Your task to perform on an android device: Open Reddit.com Image 0: 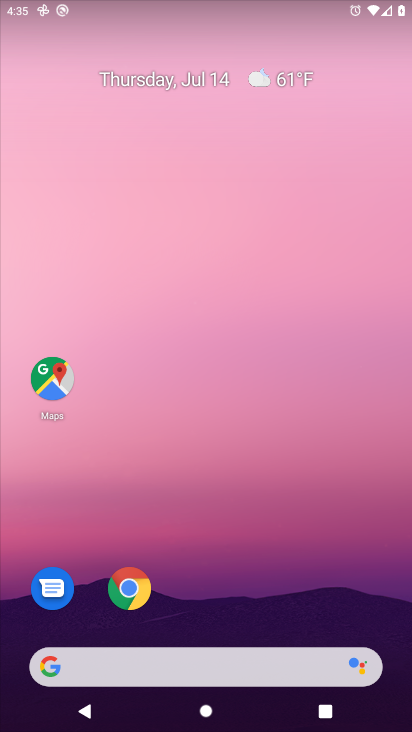
Step 0: press home button
Your task to perform on an android device: Open Reddit.com Image 1: 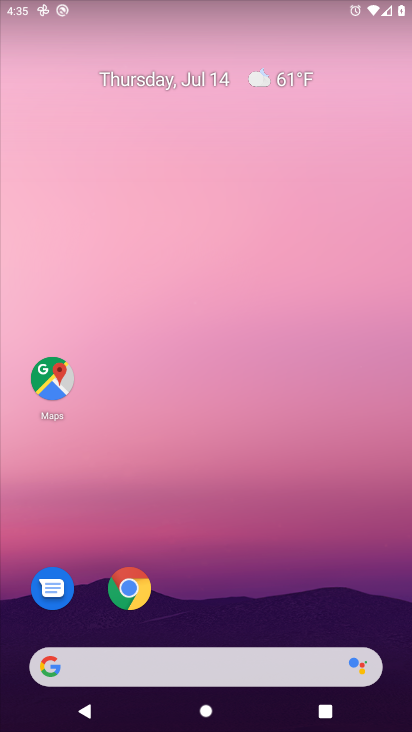
Step 1: click (57, 669)
Your task to perform on an android device: Open Reddit.com Image 2: 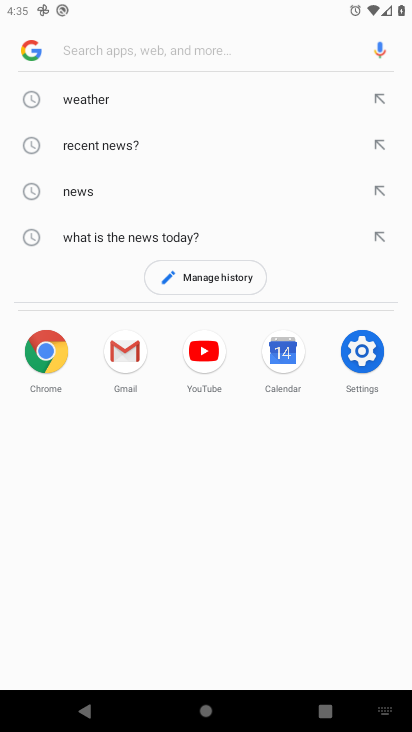
Step 2: type "Reddit.com"
Your task to perform on an android device: Open Reddit.com Image 3: 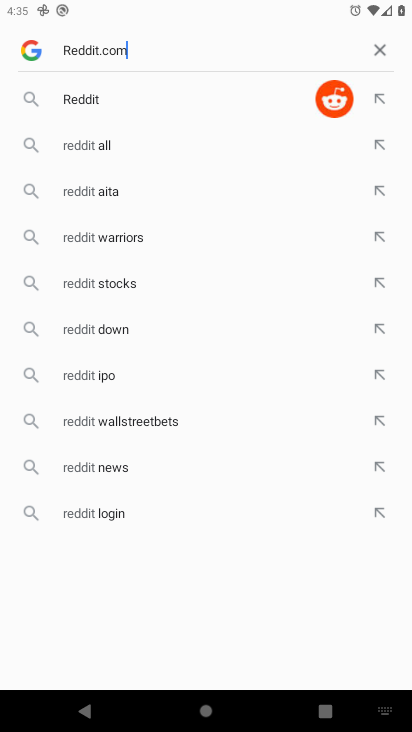
Step 3: press enter
Your task to perform on an android device: Open Reddit.com Image 4: 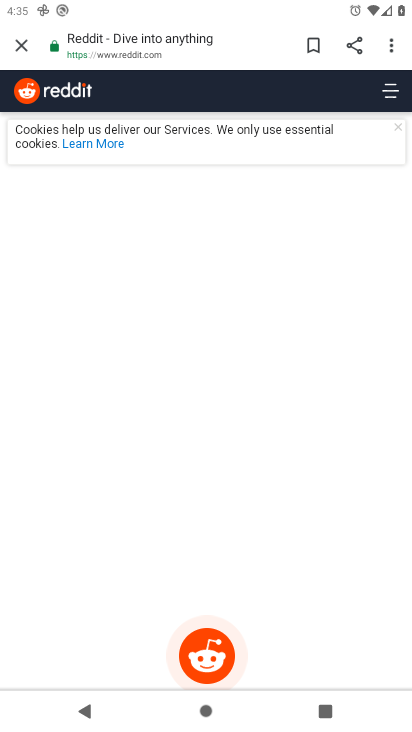
Step 4: task complete